Your task to perform on an android device: How much does a 3 bedroom apartment rent for in Seattle? Image 0: 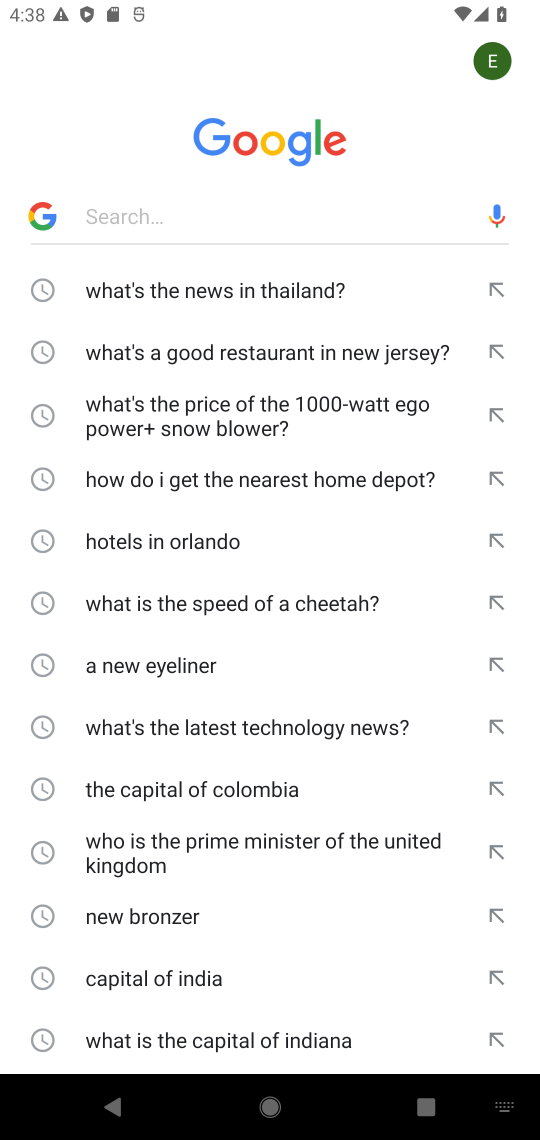
Step 0: type "How much does a 3 bedroom apartment rent for in "
Your task to perform on an android device: How much does a 3 bedroom apartment rent for in Seattle? Image 1: 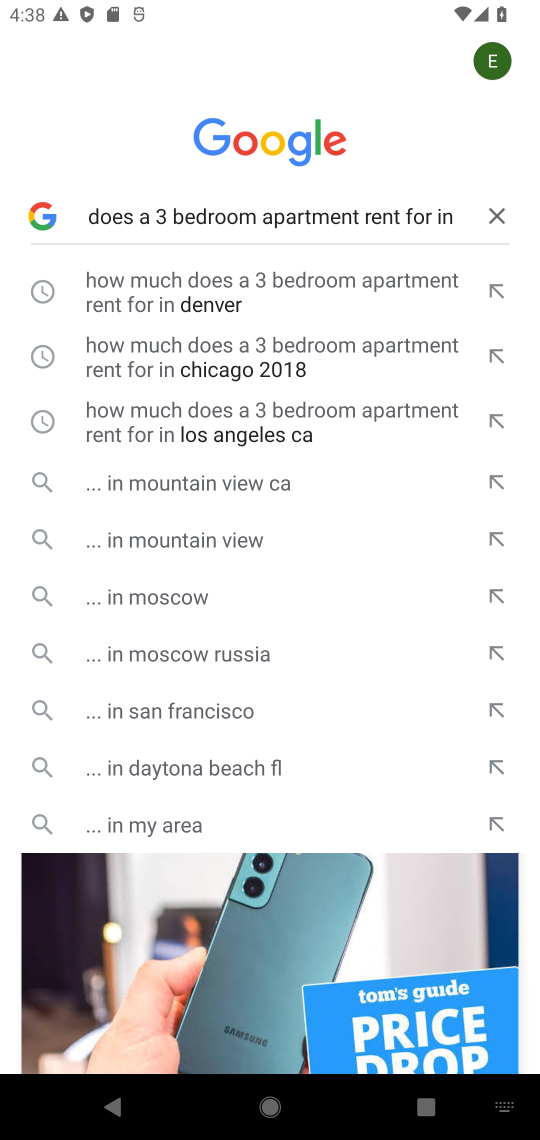
Step 1: type " Seattle?"
Your task to perform on an android device: How much does a 3 bedroom apartment rent for in Seattle? Image 2: 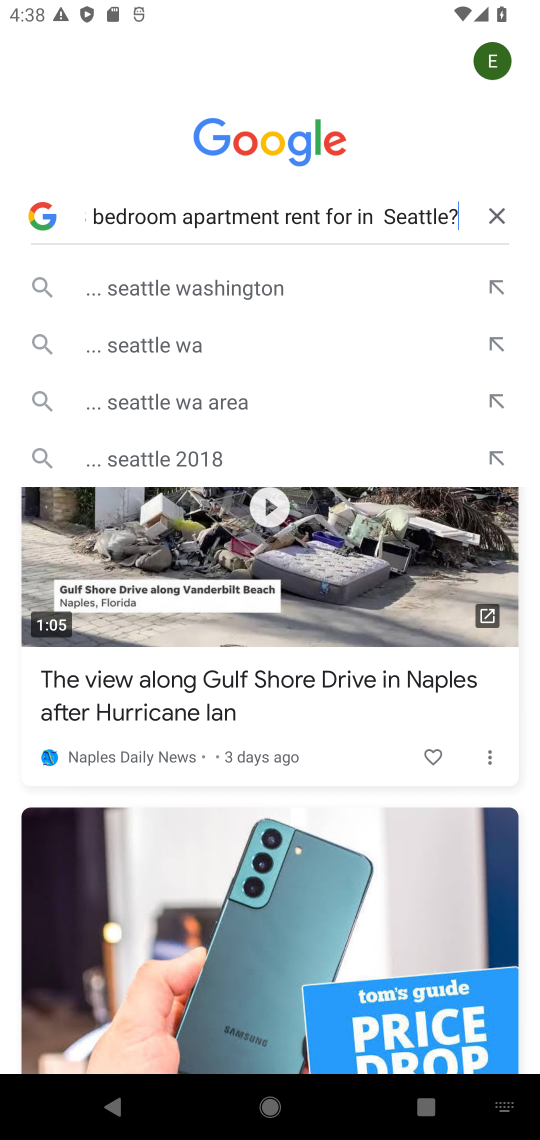
Step 2: press enter
Your task to perform on an android device: How much does a 3 bedroom apartment rent for in Seattle? Image 3: 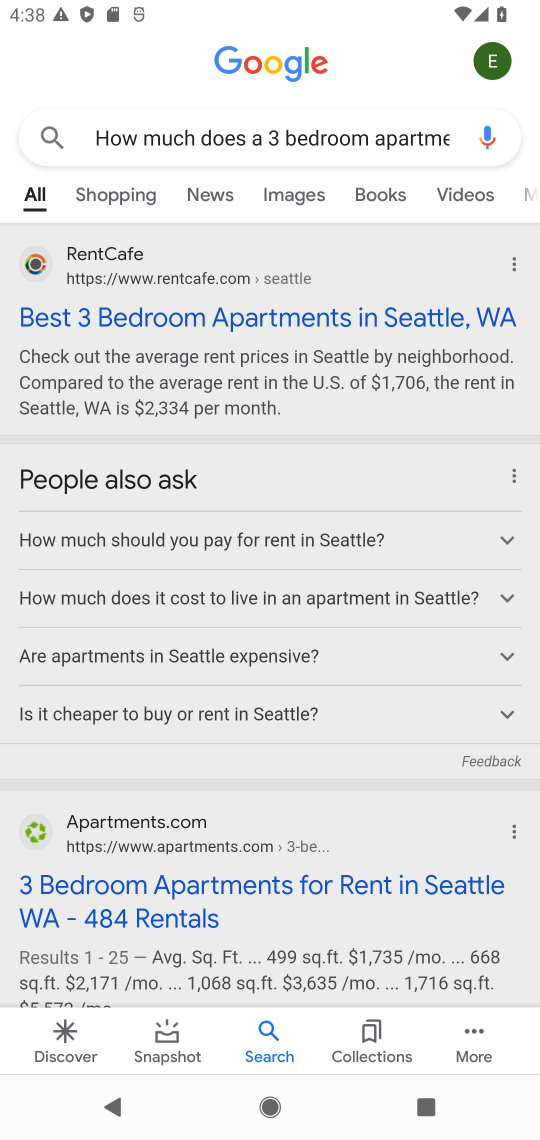
Step 3: task complete